Your task to perform on an android device: turn off notifications in google photos Image 0: 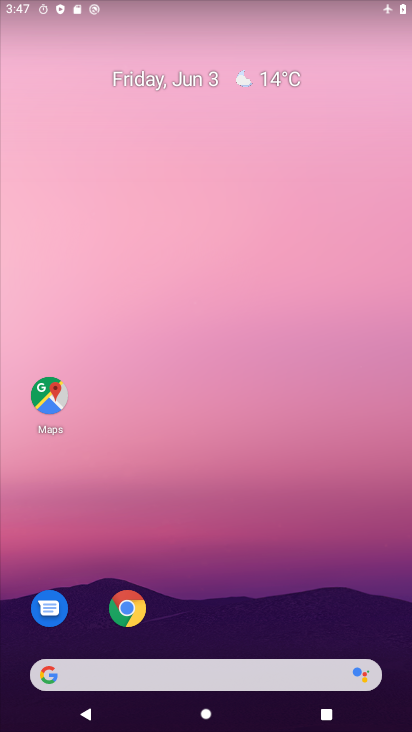
Step 0: drag from (208, 654) to (248, 103)
Your task to perform on an android device: turn off notifications in google photos Image 1: 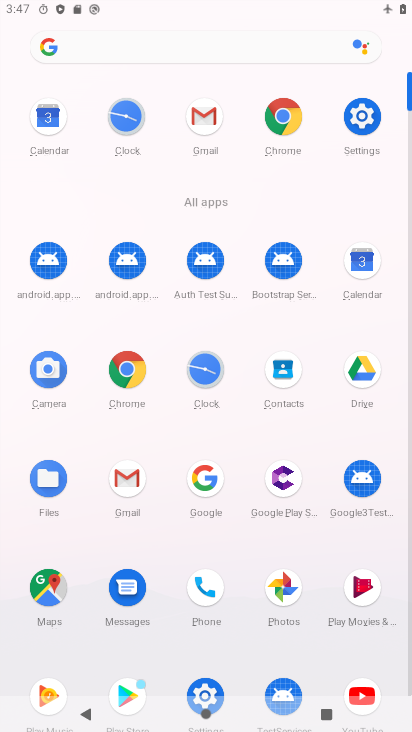
Step 1: click (270, 597)
Your task to perform on an android device: turn off notifications in google photos Image 2: 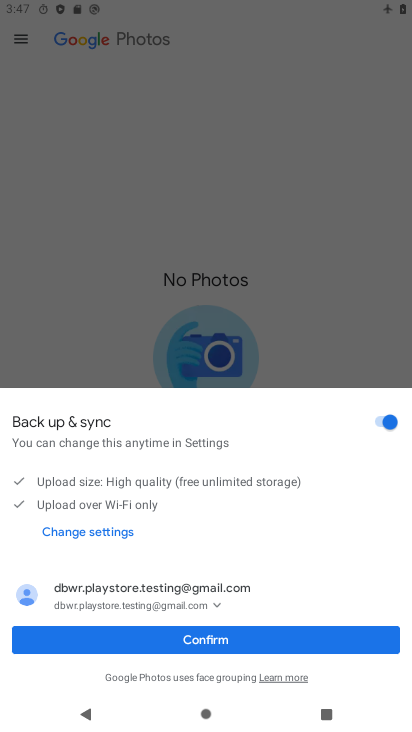
Step 2: click (197, 644)
Your task to perform on an android device: turn off notifications in google photos Image 3: 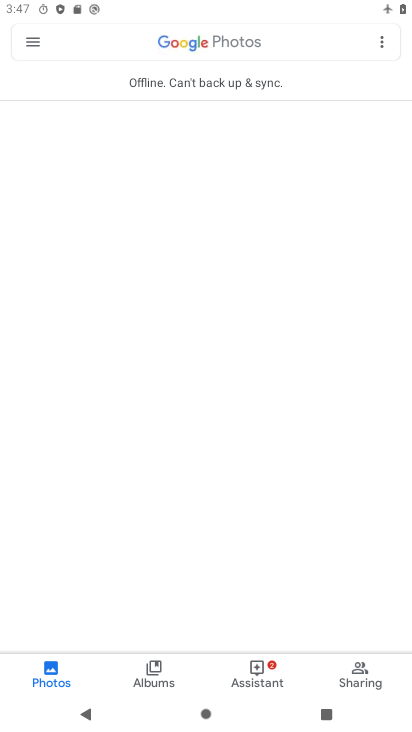
Step 3: click (26, 39)
Your task to perform on an android device: turn off notifications in google photos Image 4: 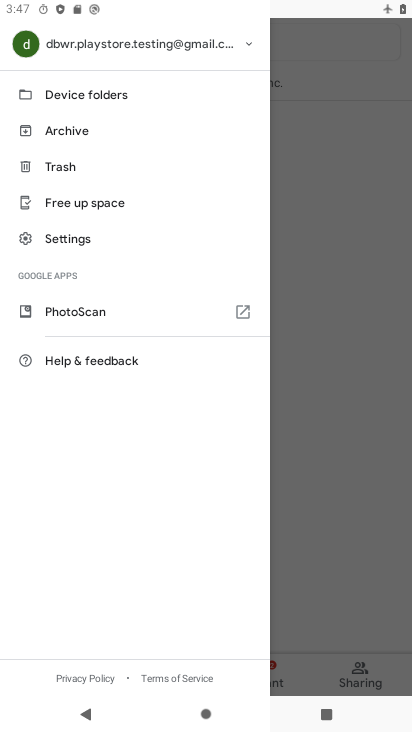
Step 4: click (57, 238)
Your task to perform on an android device: turn off notifications in google photos Image 5: 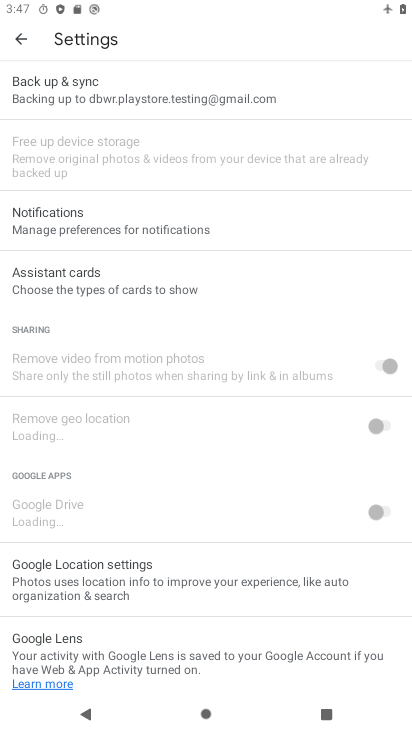
Step 5: click (111, 87)
Your task to perform on an android device: turn off notifications in google photos Image 6: 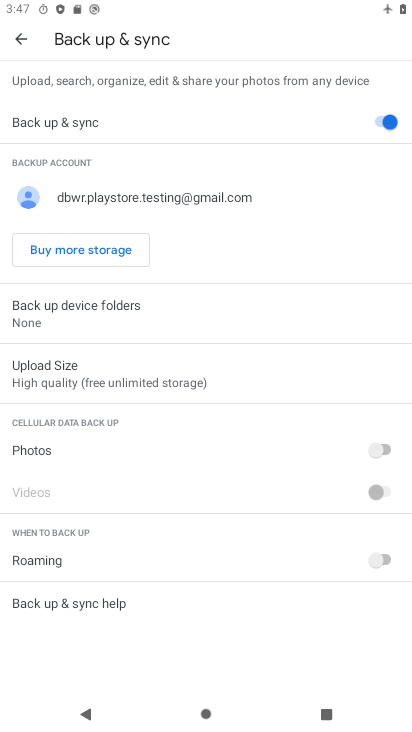
Step 6: click (19, 33)
Your task to perform on an android device: turn off notifications in google photos Image 7: 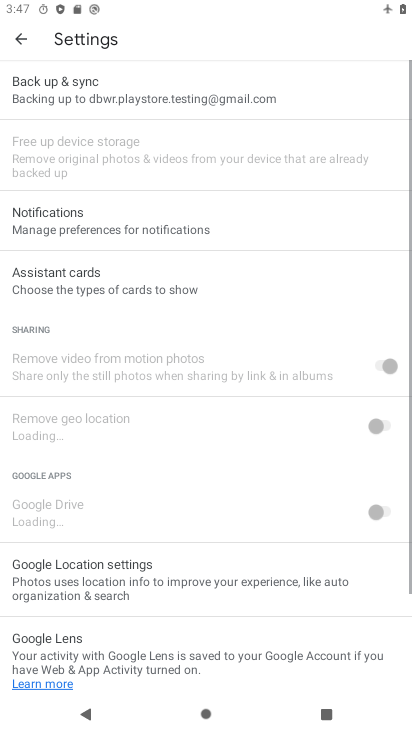
Step 7: click (53, 226)
Your task to perform on an android device: turn off notifications in google photos Image 8: 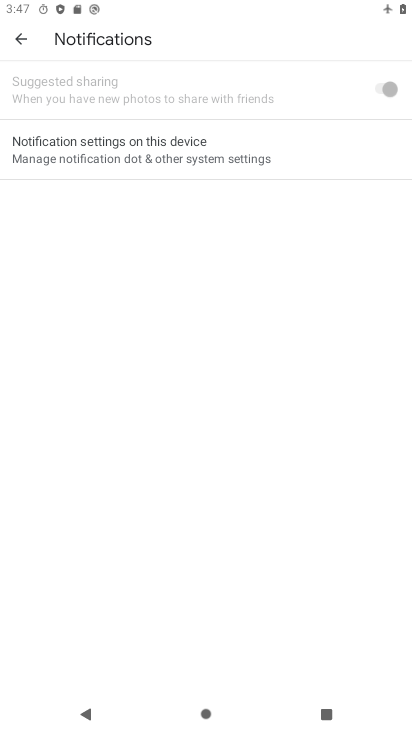
Step 8: click (42, 154)
Your task to perform on an android device: turn off notifications in google photos Image 9: 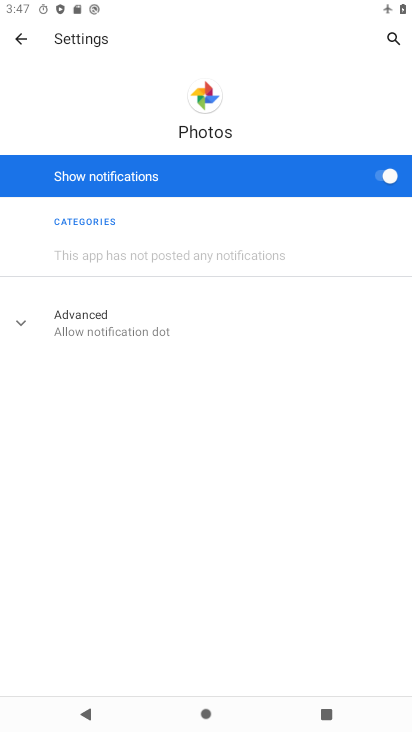
Step 9: click (383, 176)
Your task to perform on an android device: turn off notifications in google photos Image 10: 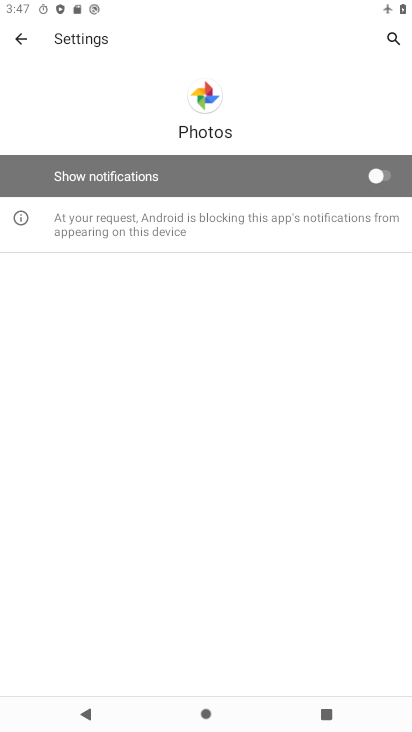
Step 10: task complete